Your task to perform on an android device: Open sound settings Image 0: 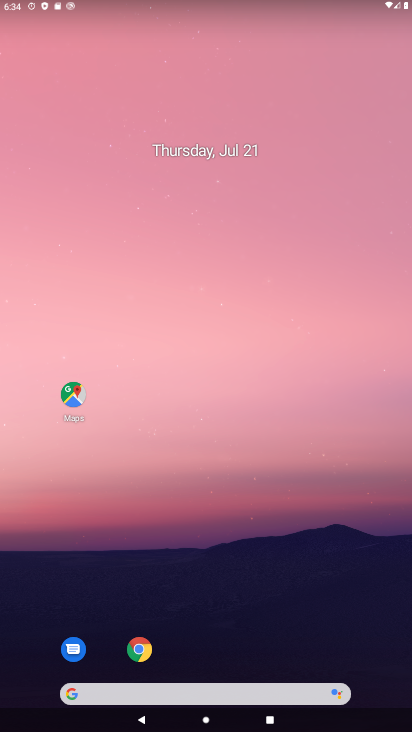
Step 0: drag from (351, 641) to (229, 2)
Your task to perform on an android device: Open sound settings Image 1: 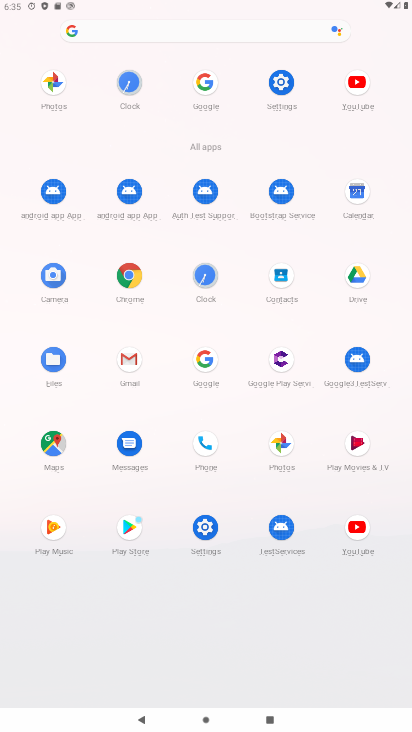
Step 1: click (200, 523)
Your task to perform on an android device: Open sound settings Image 2: 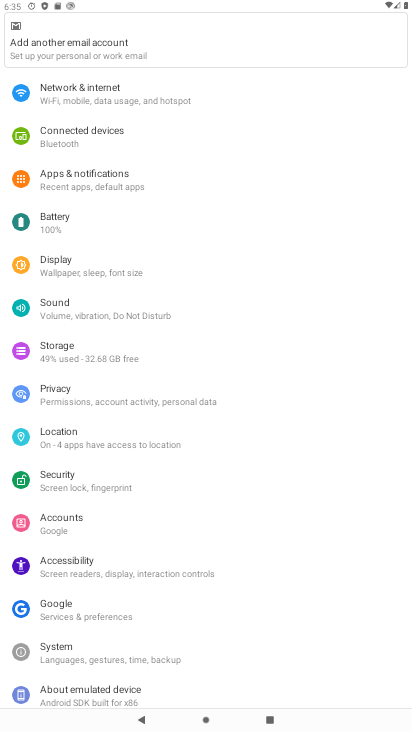
Step 2: click (58, 313)
Your task to perform on an android device: Open sound settings Image 3: 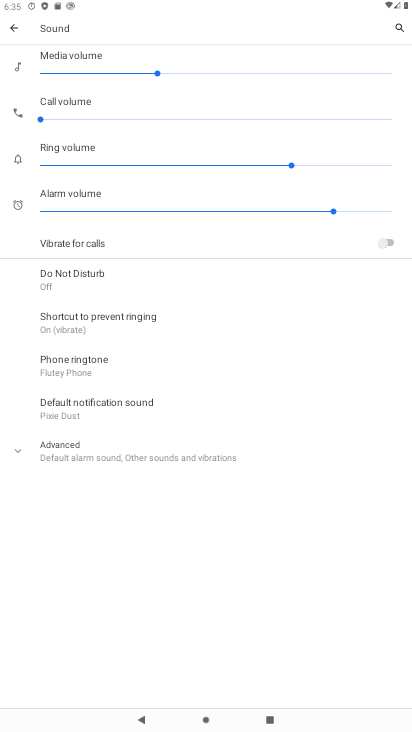
Step 3: task complete